Your task to perform on an android device: uninstall "Life360: Find Family & Friends" Image 0: 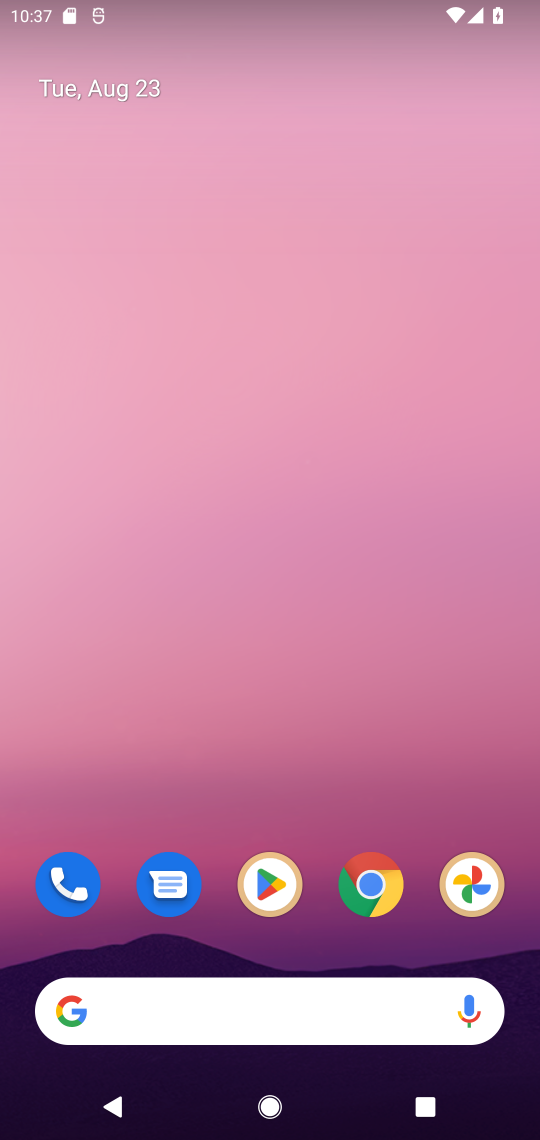
Step 0: click (267, 884)
Your task to perform on an android device: uninstall "Life360: Find Family & Friends" Image 1: 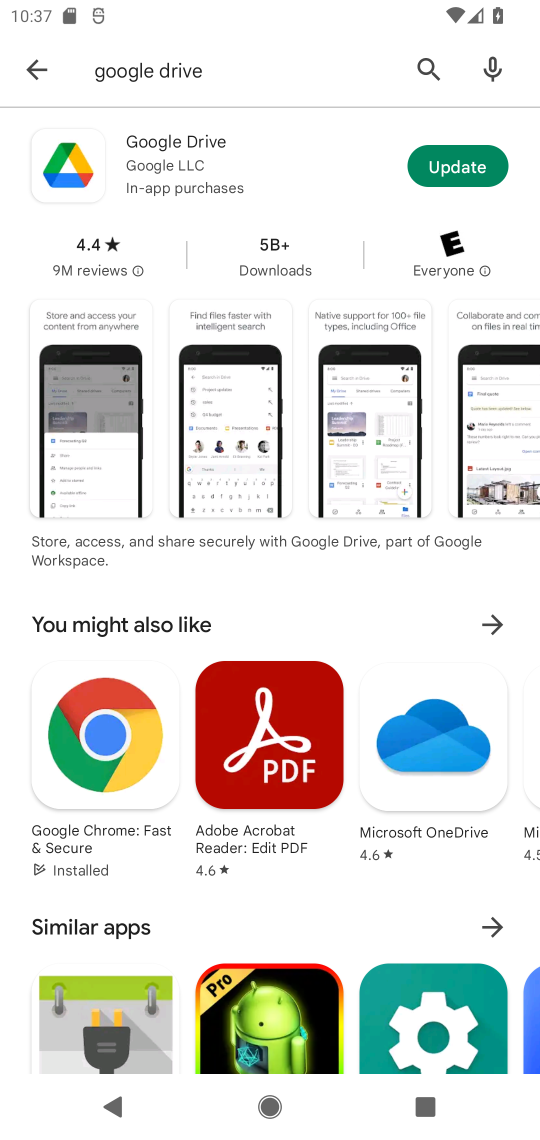
Step 1: click (426, 63)
Your task to perform on an android device: uninstall "Life360: Find Family & Friends" Image 2: 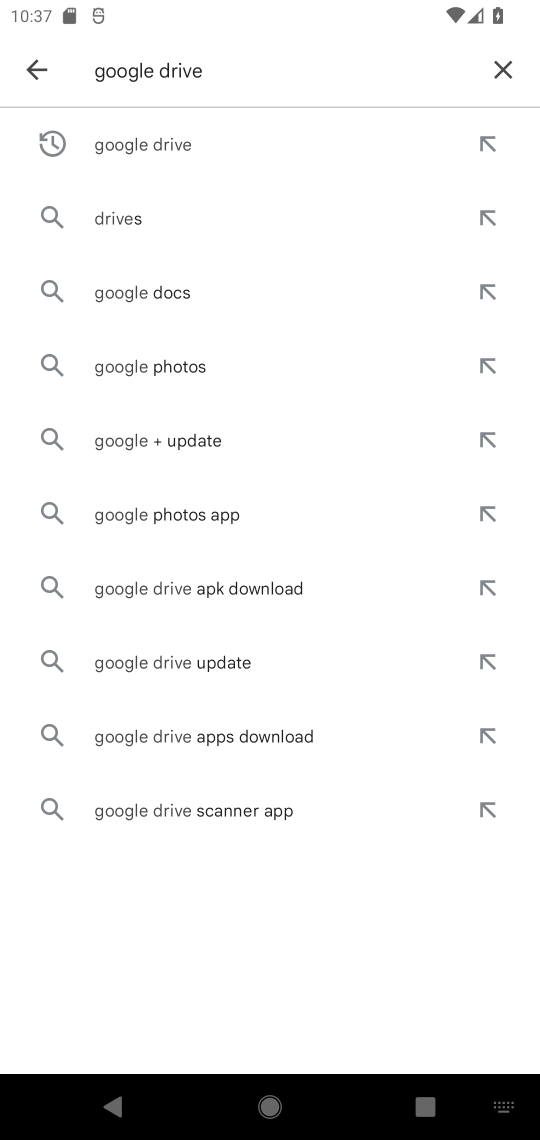
Step 2: click (506, 70)
Your task to perform on an android device: uninstall "Life360: Find Family & Friends" Image 3: 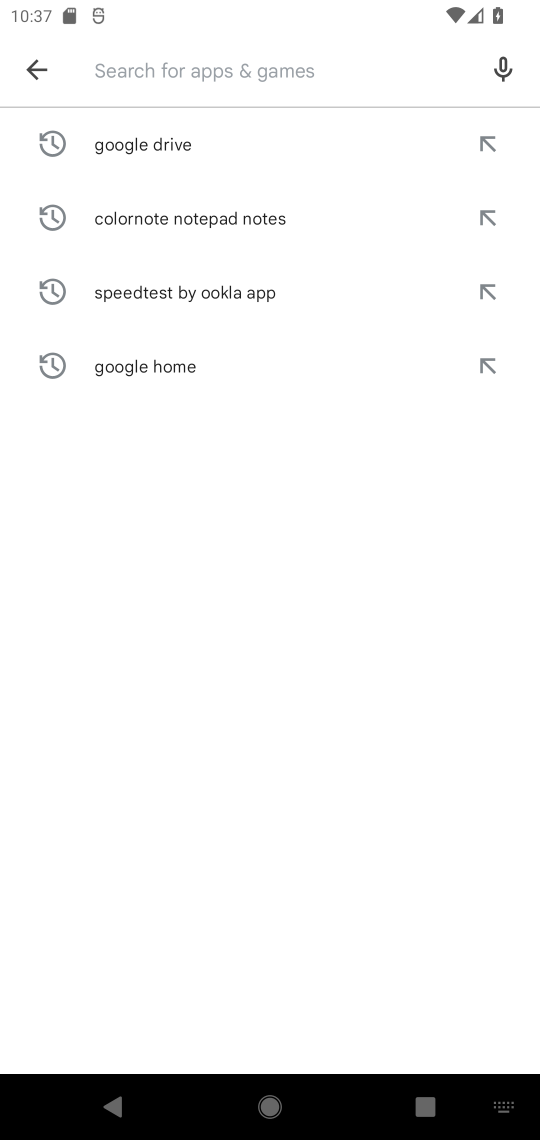
Step 3: type "Life360: Find Family & Friends"
Your task to perform on an android device: uninstall "Life360: Find Family & Friends" Image 4: 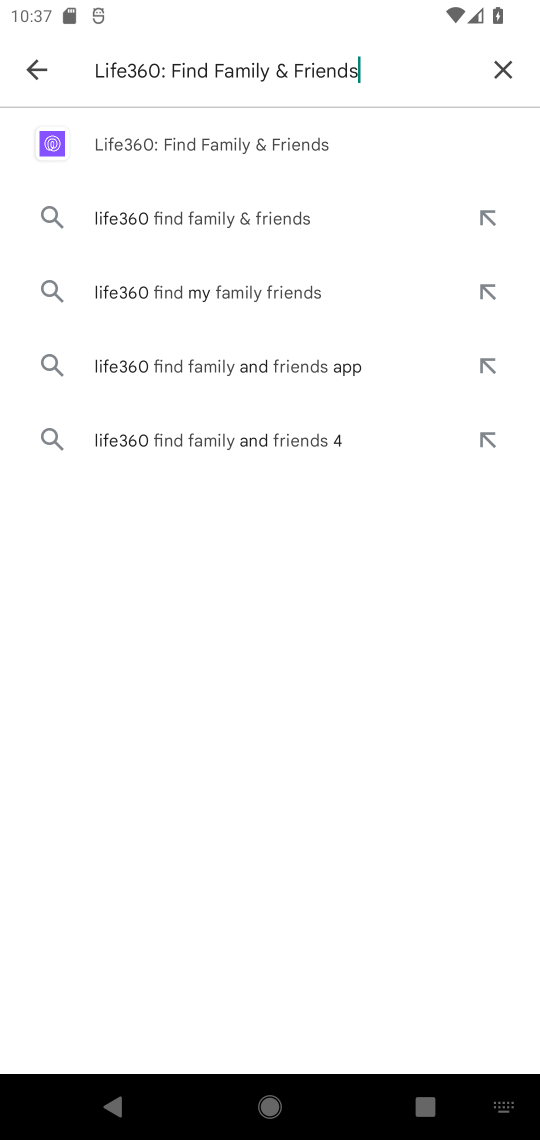
Step 4: click (150, 141)
Your task to perform on an android device: uninstall "Life360: Find Family & Friends" Image 5: 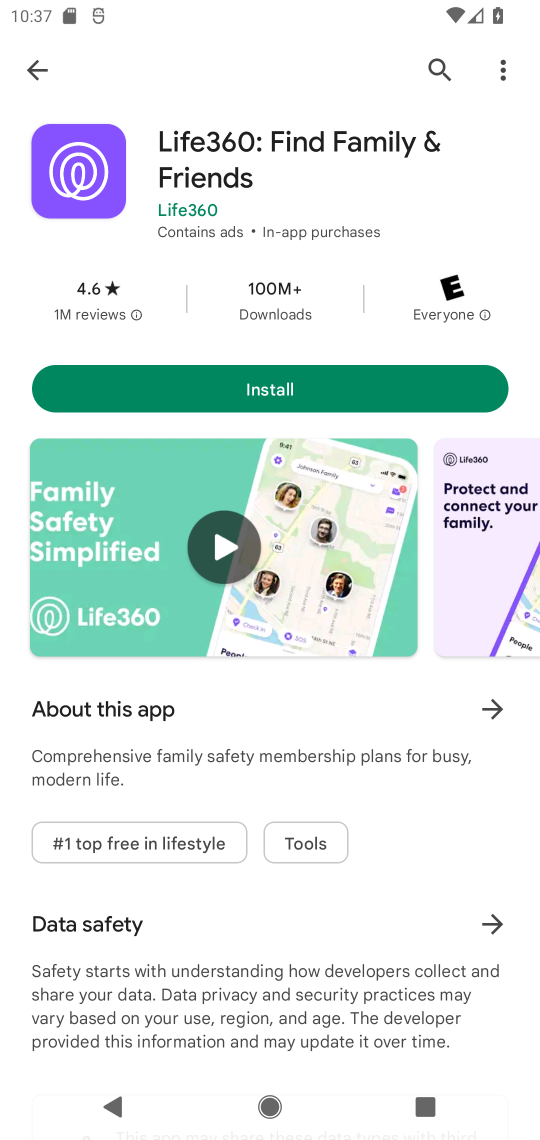
Step 5: click (276, 394)
Your task to perform on an android device: uninstall "Life360: Find Family & Friends" Image 6: 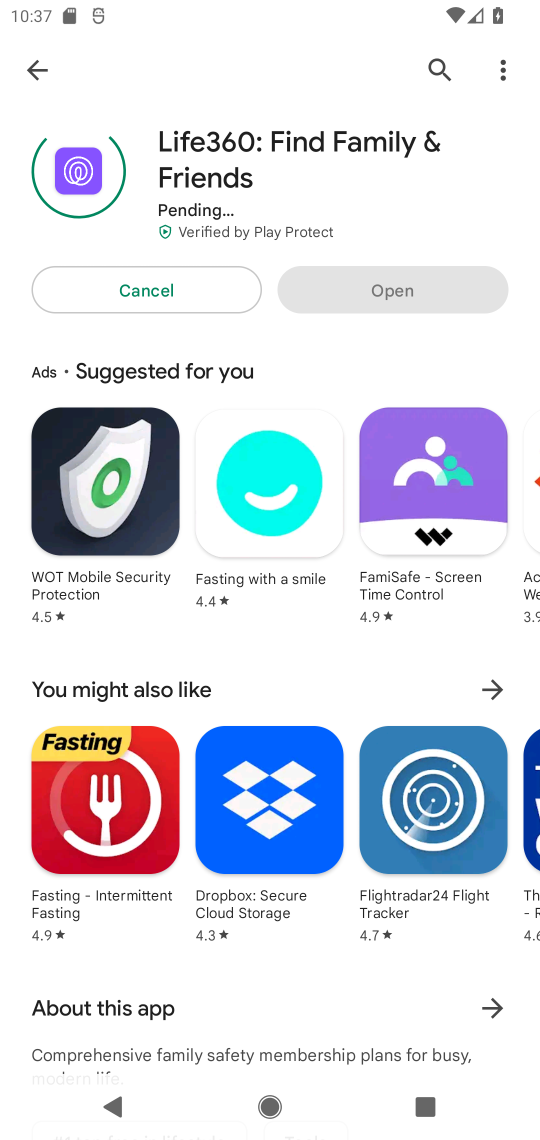
Step 6: click (138, 287)
Your task to perform on an android device: uninstall "Life360: Find Family & Friends" Image 7: 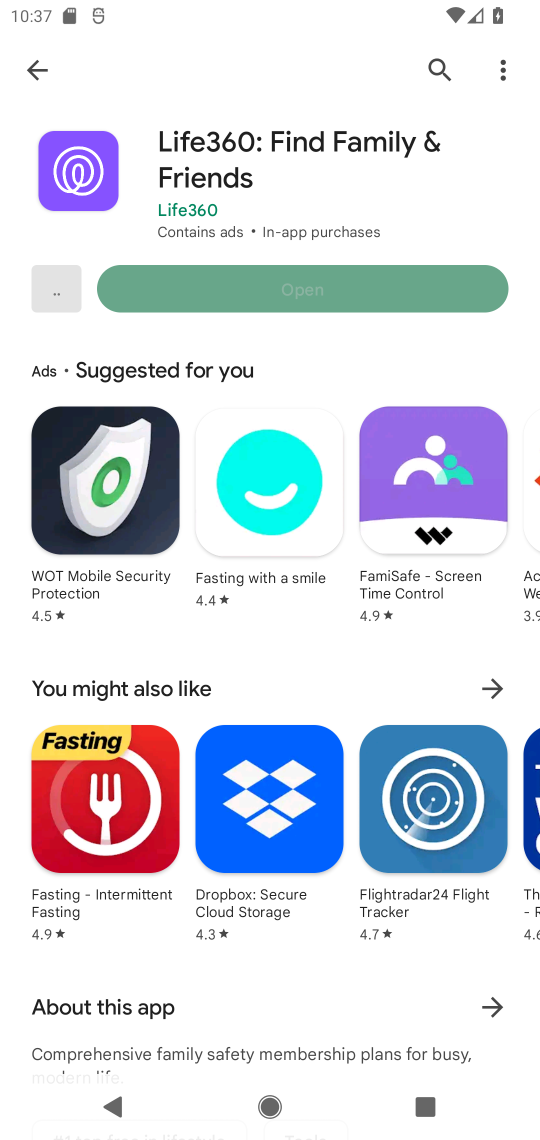
Step 7: task complete